Your task to perform on an android device: change alarm snooze length Image 0: 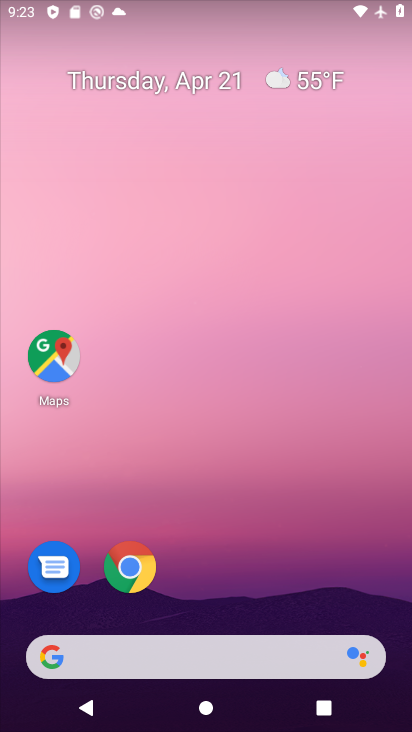
Step 0: drag from (360, 608) to (354, 187)
Your task to perform on an android device: change alarm snooze length Image 1: 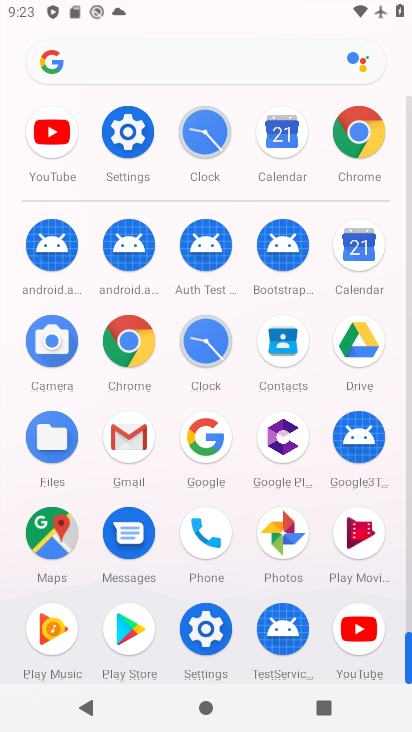
Step 1: click (194, 343)
Your task to perform on an android device: change alarm snooze length Image 2: 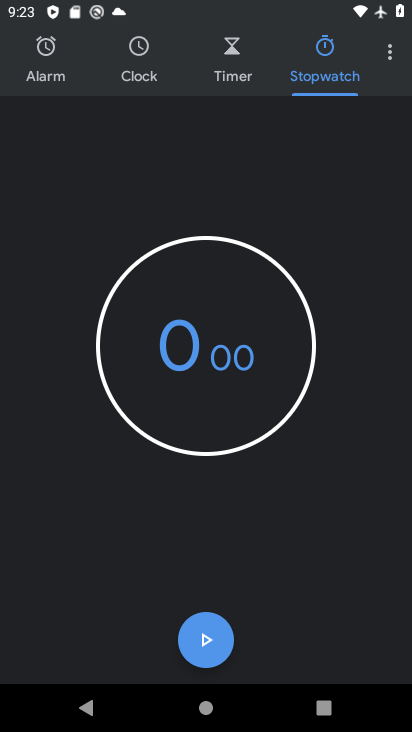
Step 2: click (388, 55)
Your task to perform on an android device: change alarm snooze length Image 3: 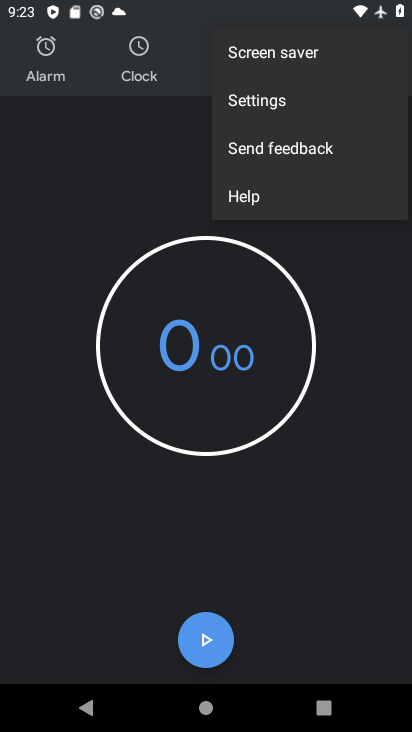
Step 3: click (252, 97)
Your task to perform on an android device: change alarm snooze length Image 4: 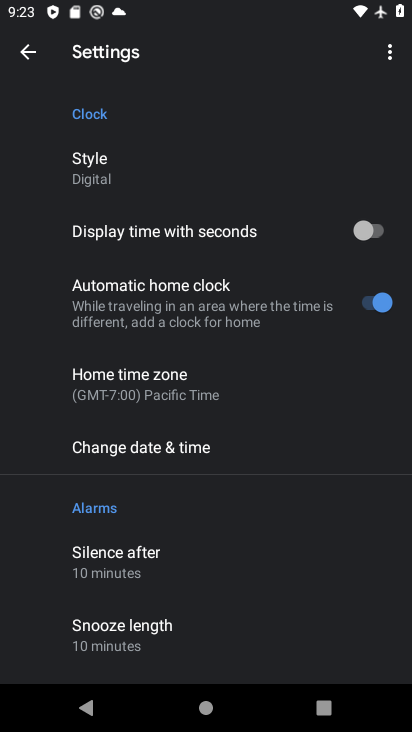
Step 4: drag from (241, 523) to (274, 282)
Your task to perform on an android device: change alarm snooze length Image 5: 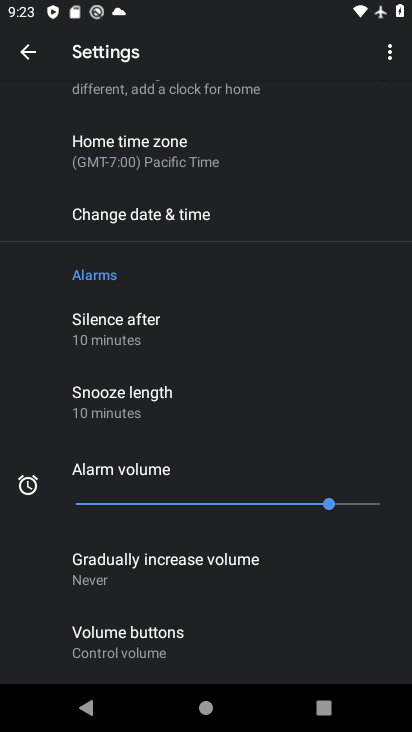
Step 5: click (87, 394)
Your task to perform on an android device: change alarm snooze length Image 6: 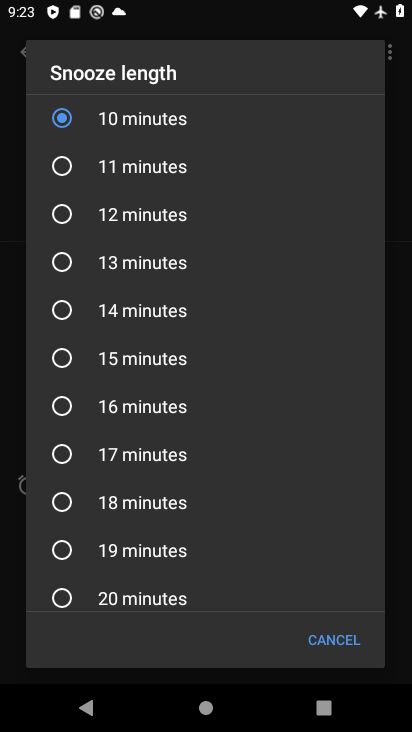
Step 6: click (60, 358)
Your task to perform on an android device: change alarm snooze length Image 7: 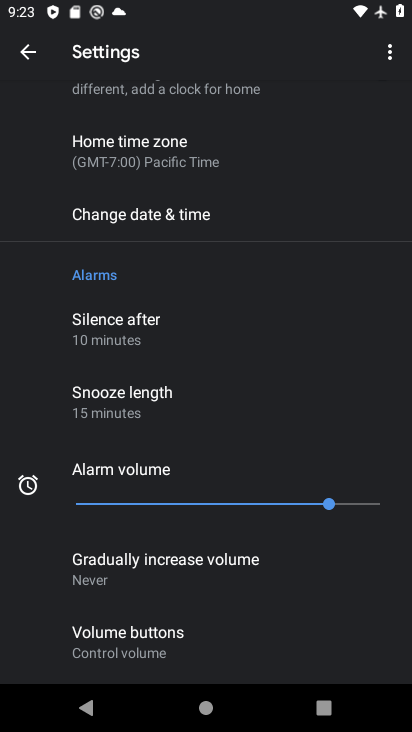
Step 7: task complete